Your task to perform on an android device: toggle pop-ups in chrome Image 0: 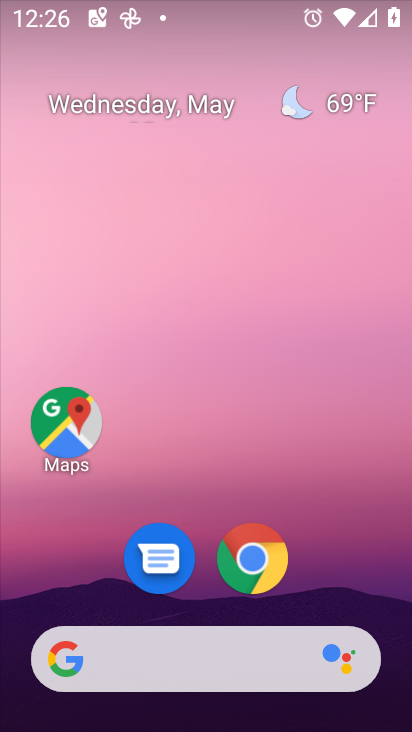
Step 0: drag from (400, 652) to (275, 19)
Your task to perform on an android device: toggle pop-ups in chrome Image 1: 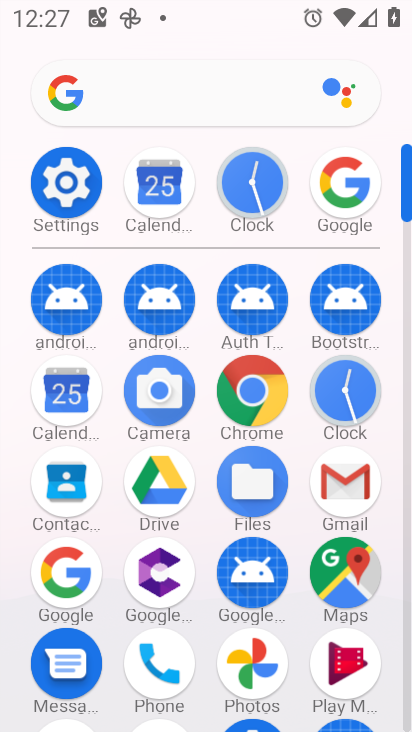
Step 1: click (230, 388)
Your task to perform on an android device: toggle pop-ups in chrome Image 2: 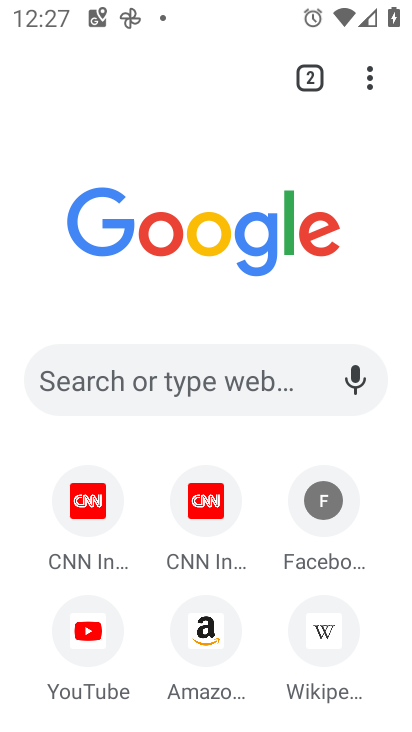
Step 2: click (370, 70)
Your task to perform on an android device: toggle pop-ups in chrome Image 3: 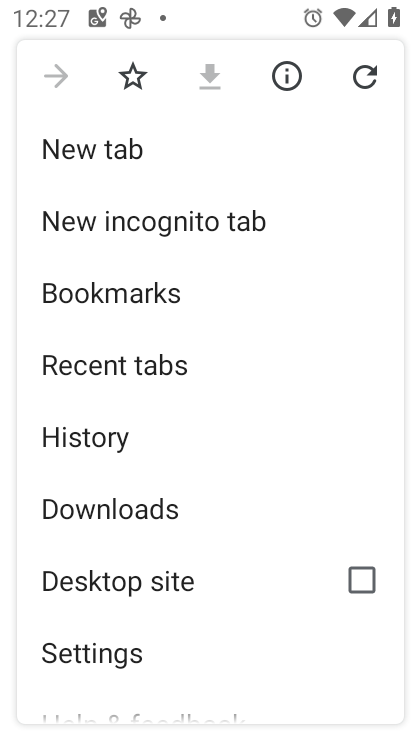
Step 3: click (151, 651)
Your task to perform on an android device: toggle pop-ups in chrome Image 4: 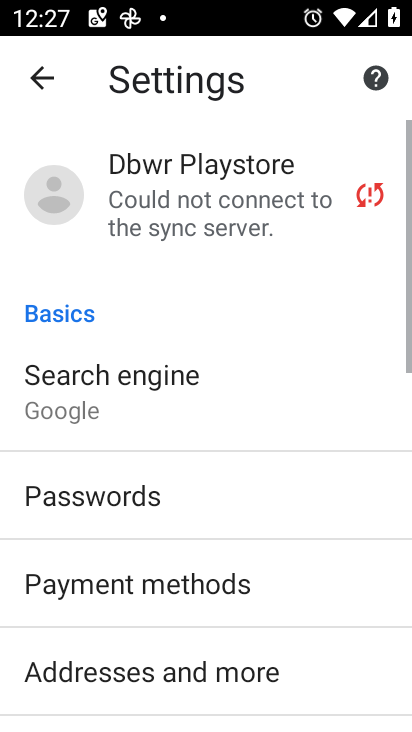
Step 4: drag from (151, 651) to (199, 104)
Your task to perform on an android device: toggle pop-ups in chrome Image 5: 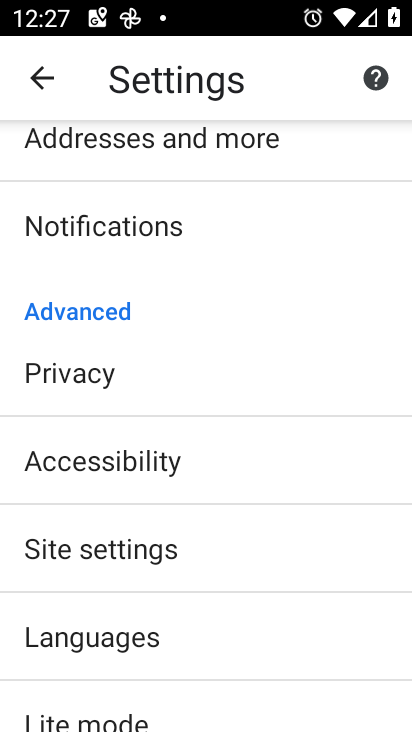
Step 5: click (187, 555)
Your task to perform on an android device: toggle pop-ups in chrome Image 6: 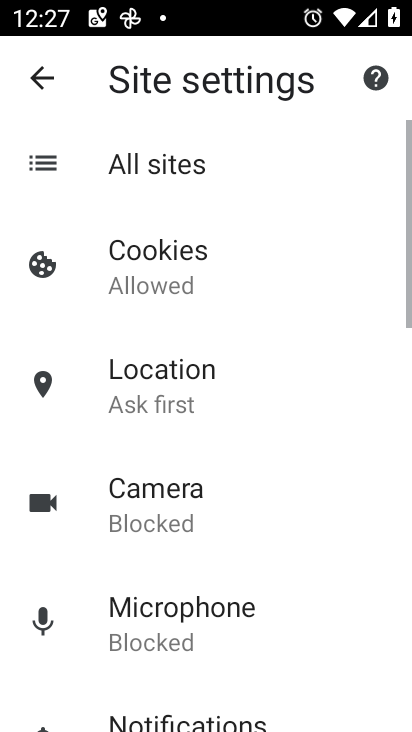
Step 6: drag from (216, 647) to (235, 130)
Your task to perform on an android device: toggle pop-ups in chrome Image 7: 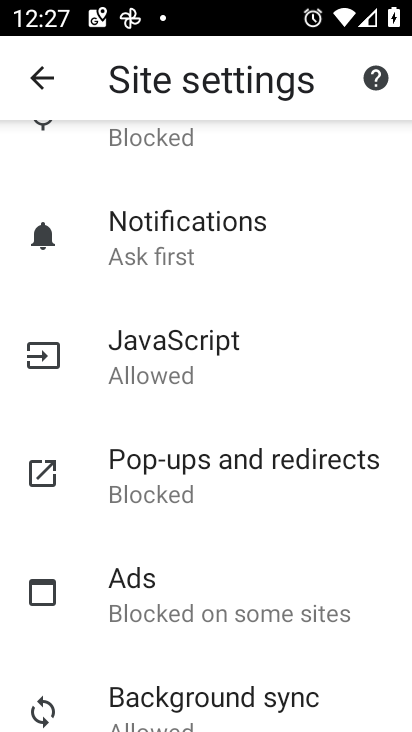
Step 7: click (227, 488)
Your task to perform on an android device: toggle pop-ups in chrome Image 8: 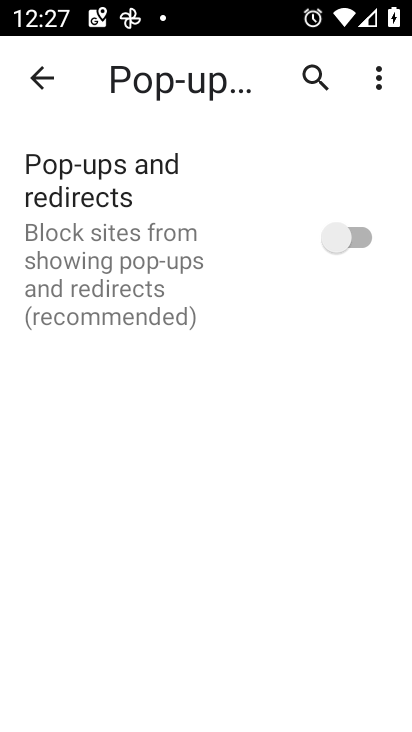
Step 8: click (311, 260)
Your task to perform on an android device: toggle pop-ups in chrome Image 9: 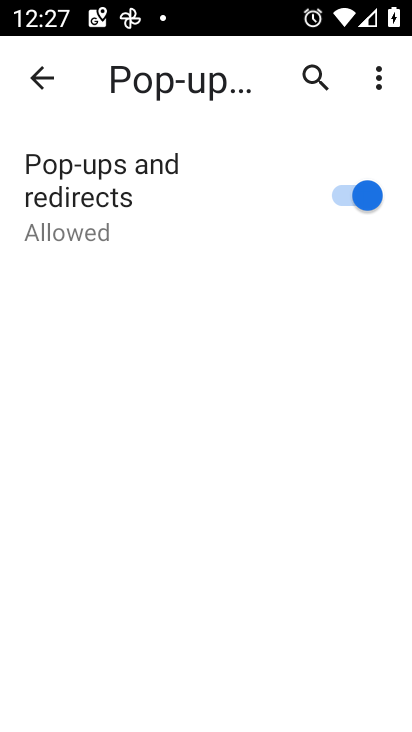
Step 9: task complete